Your task to perform on an android device: turn on the 12-hour format for clock Image 0: 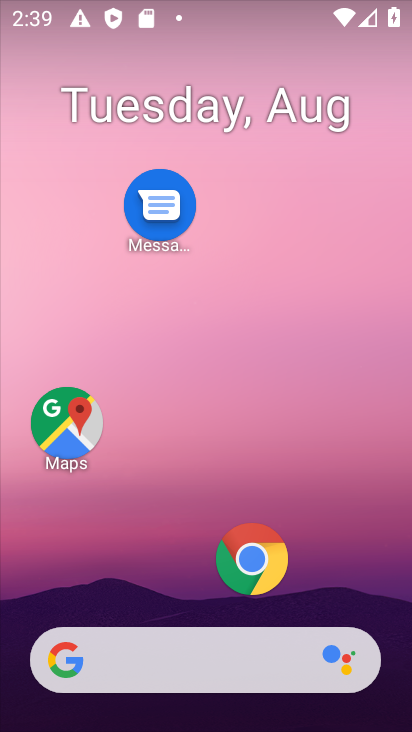
Step 0: drag from (173, 584) to (139, 53)
Your task to perform on an android device: turn on the 12-hour format for clock Image 1: 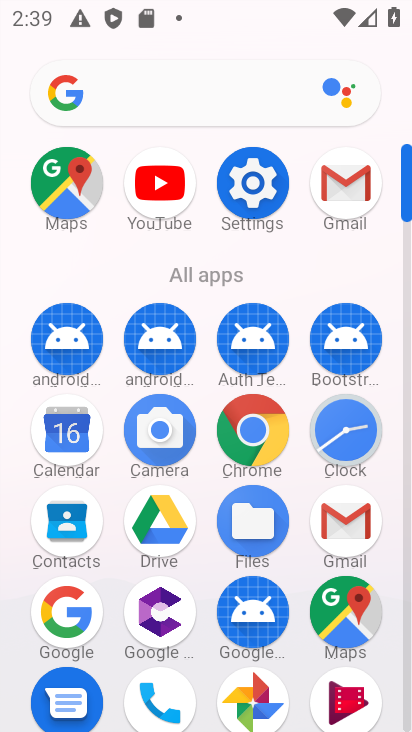
Step 1: click (345, 427)
Your task to perform on an android device: turn on the 12-hour format for clock Image 2: 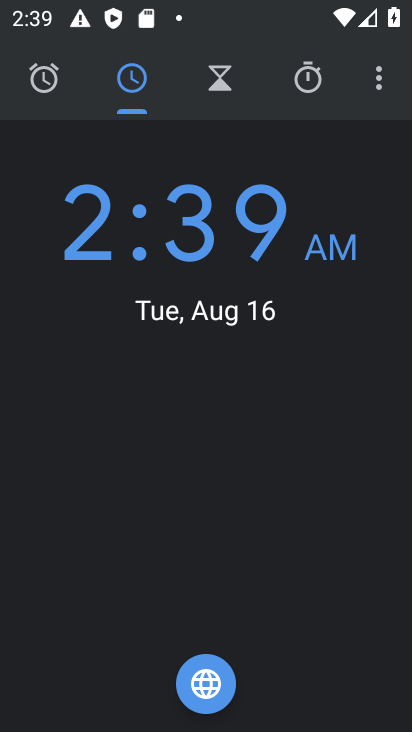
Step 2: click (381, 76)
Your task to perform on an android device: turn on the 12-hour format for clock Image 3: 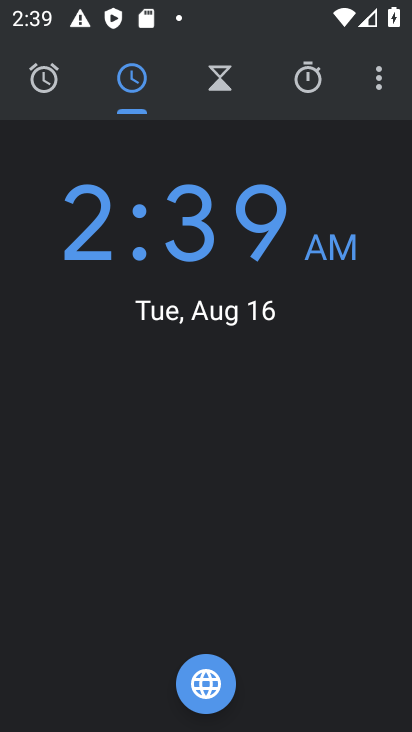
Step 3: click (380, 75)
Your task to perform on an android device: turn on the 12-hour format for clock Image 4: 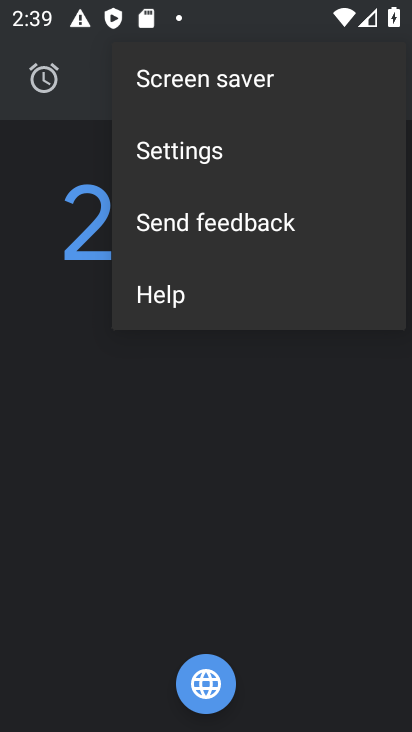
Step 4: click (202, 146)
Your task to perform on an android device: turn on the 12-hour format for clock Image 5: 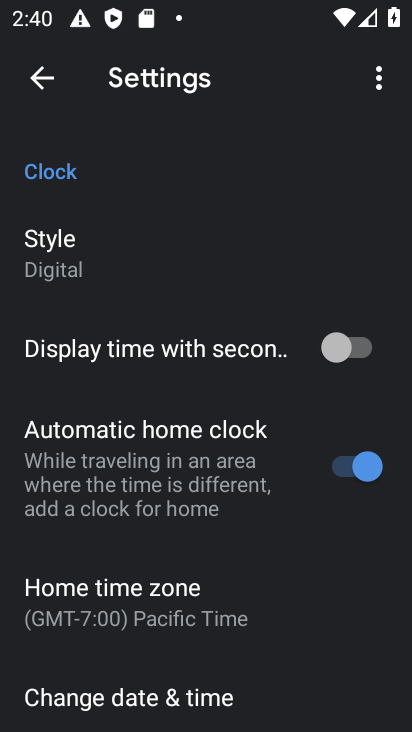
Step 5: drag from (192, 662) to (186, 415)
Your task to perform on an android device: turn on the 12-hour format for clock Image 6: 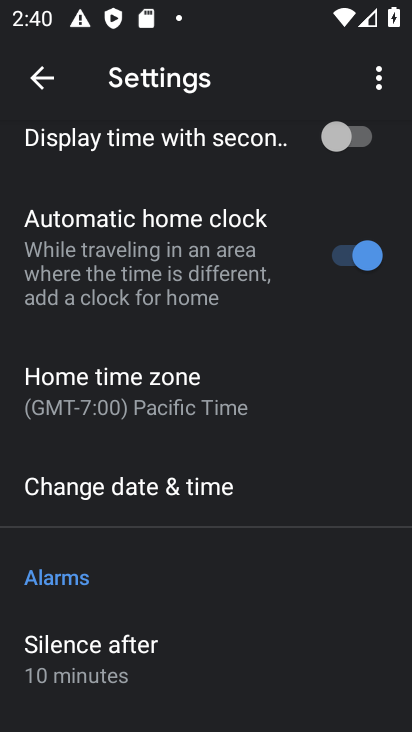
Step 6: click (148, 487)
Your task to perform on an android device: turn on the 12-hour format for clock Image 7: 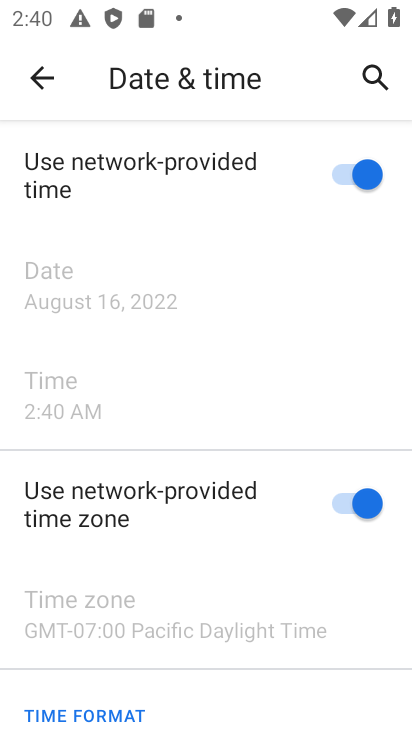
Step 7: task complete